Your task to perform on an android device: What is the recent news? Image 0: 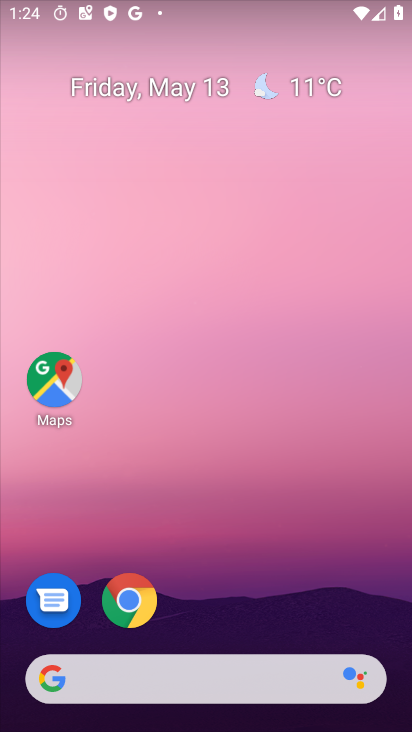
Step 0: drag from (182, 629) to (245, 262)
Your task to perform on an android device: What is the recent news? Image 1: 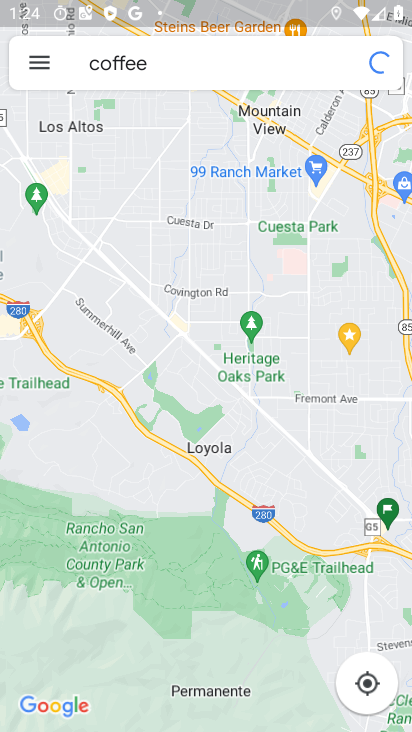
Step 1: press home button
Your task to perform on an android device: What is the recent news? Image 2: 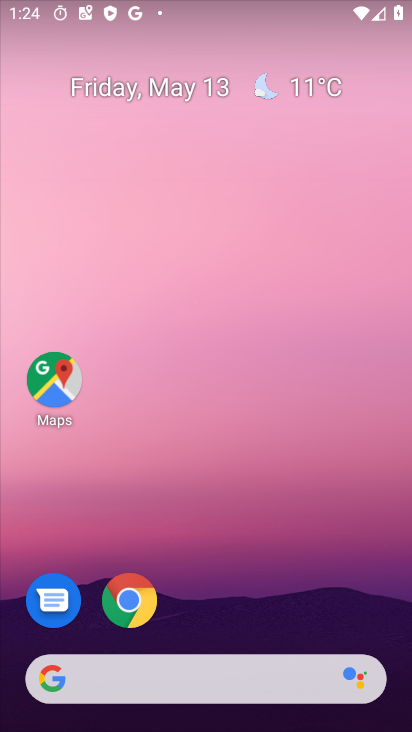
Step 2: drag from (183, 587) to (198, 150)
Your task to perform on an android device: What is the recent news? Image 3: 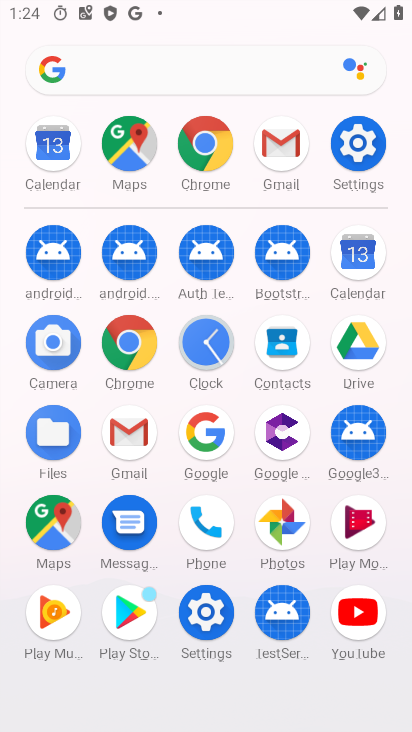
Step 3: click (158, 71)
Your task to perform on an android device: What is the recent news? Image 4: 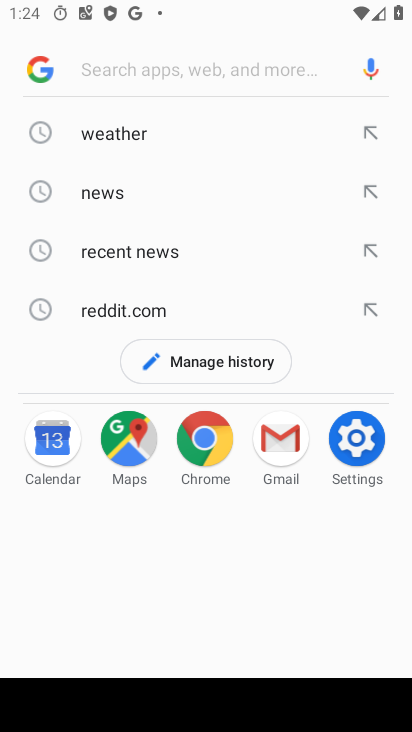
Step 4: click (150, 262)
Your task to perform on an android device: What is the recent news? Image 5: 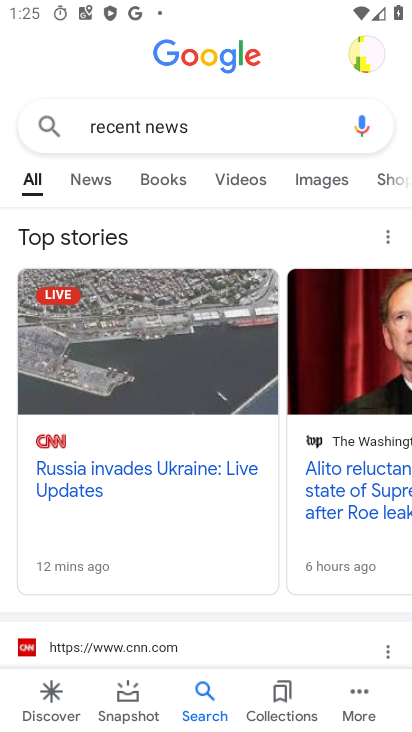
Step 5: click (273, 276)
Your task to perform on an android device: What is the recent news? Image 6: 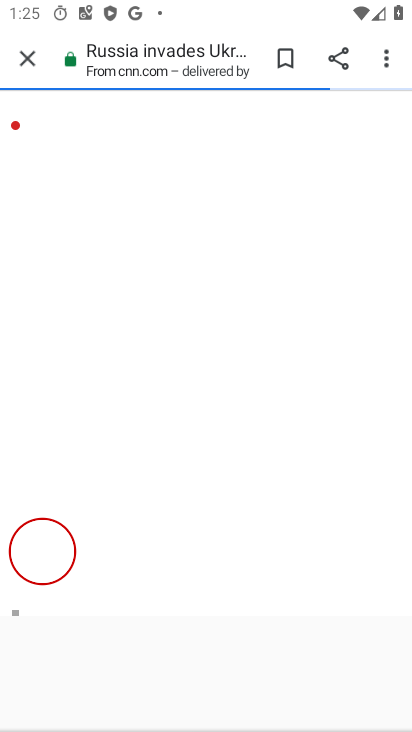
Step 6: task complete